Your task to perform on an android device: turn off notifications in google photos Image 0: 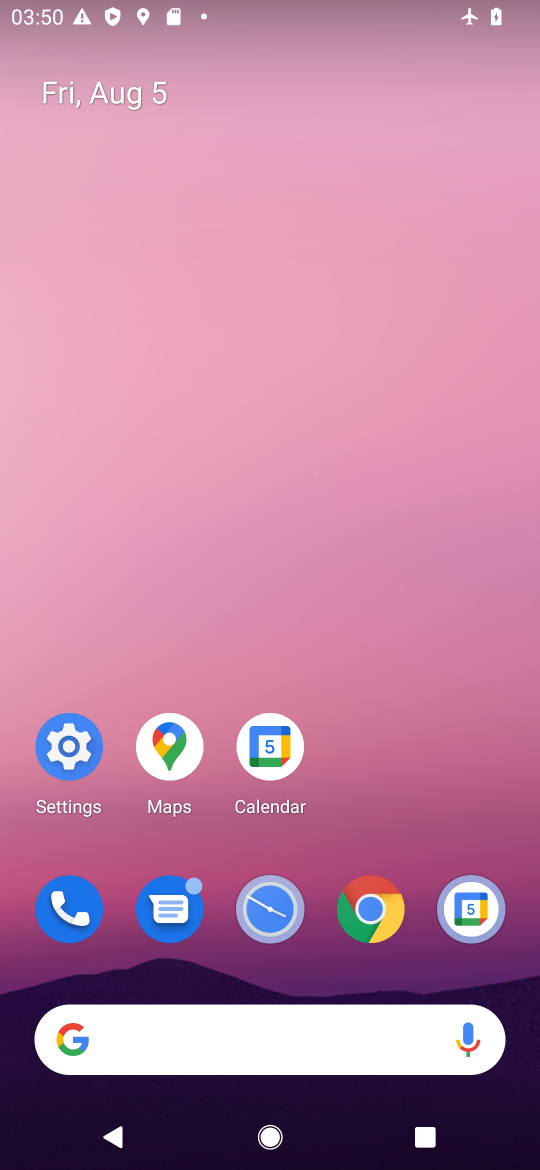
Step 0: drag from (367, 799) to (209, 7)
Your task to perform on an android device: turn off notifications in google photos Image 1: 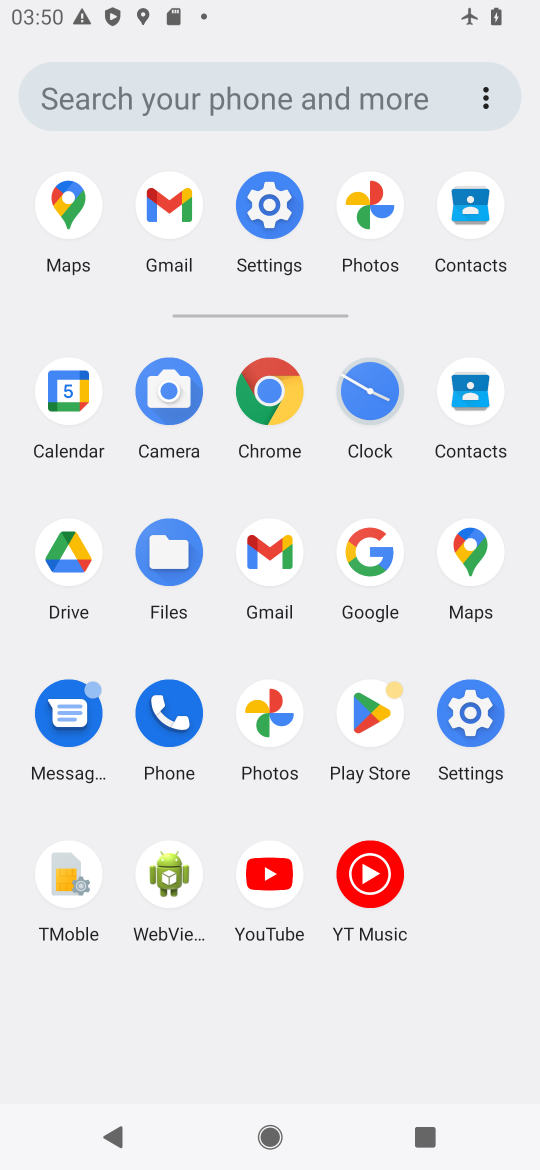
Step 1: click (372, 205)
Your task to perform on an android device: turn off notifications in google photos Image 2: 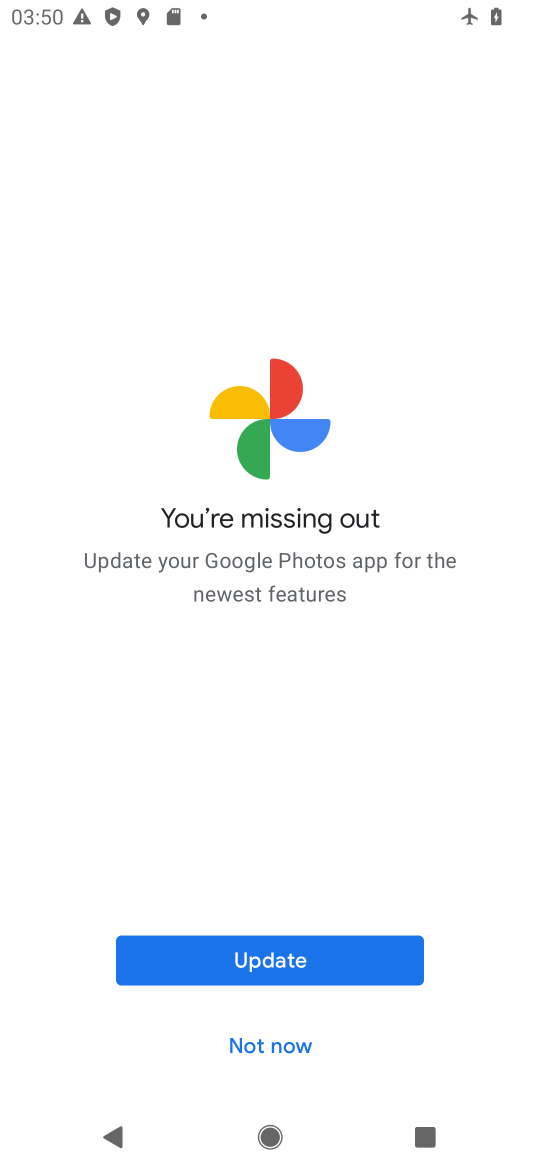
Step 2: click (264, 951)
Your task to perform on an android device: turn off notifications in google photos Image 3: 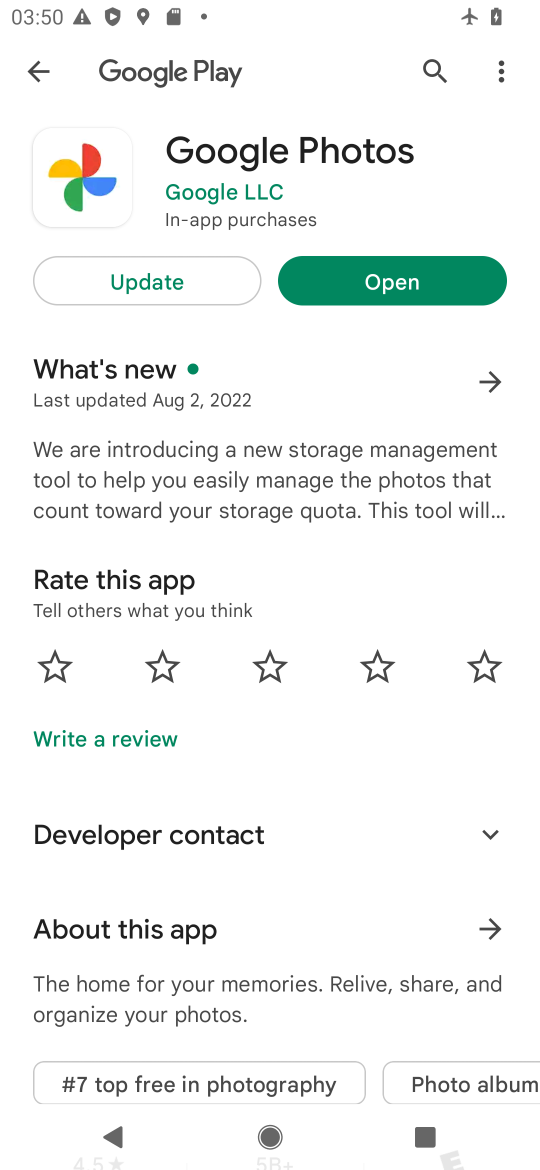
Step 3: click (136, 286)
Your task to perform on an android device: turn off notifications in google photos Image 4: 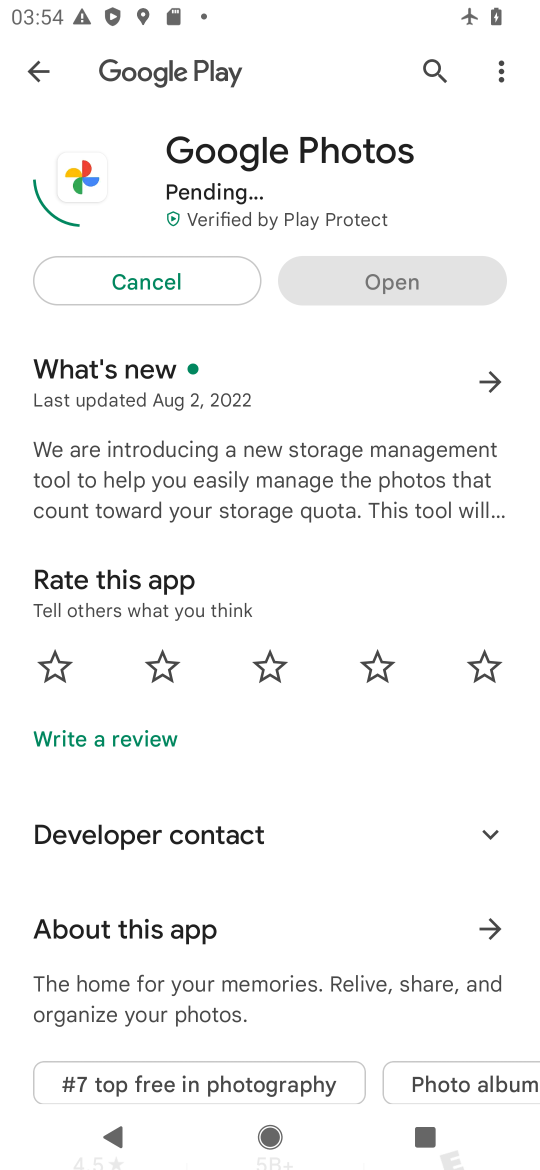
Step 4: task complete